Your task to perform on an android device: open the mobile data screen to see how much data has been used Image 0: 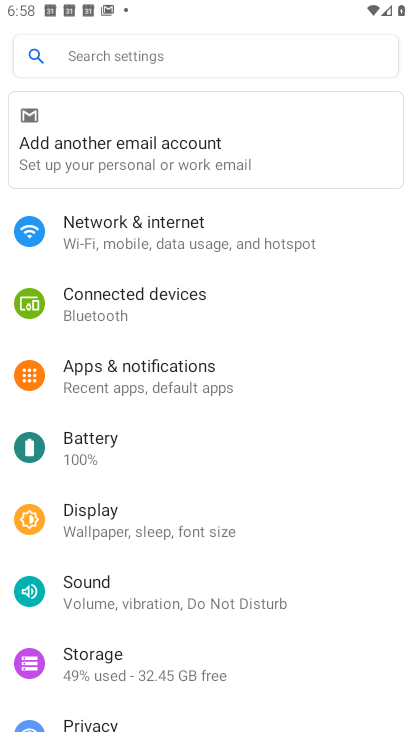
Step 0: press home button
Your task to perform on an android device: open the mobile data screen to see how much data has been used Image 1: 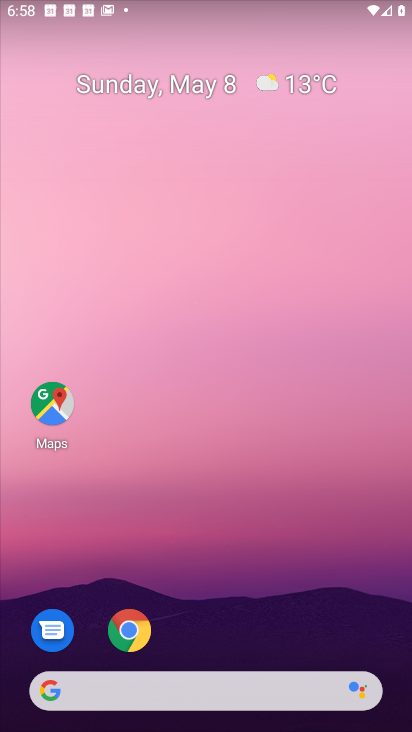
Step 1: drag from (277, 543) to (207, 169)
Your task to perform on an android device: open the mobile data screen to see how much data has been used Image 2: 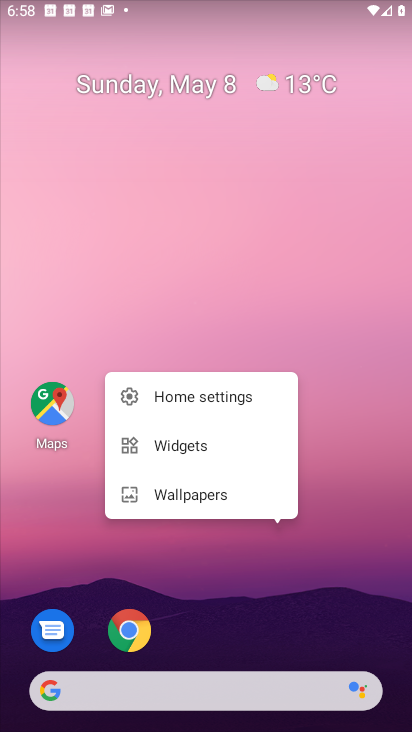
Step 2: click (348, 562)
Your task to perform on an android device: open the mobile data screen to see how much data has been used Image 3: 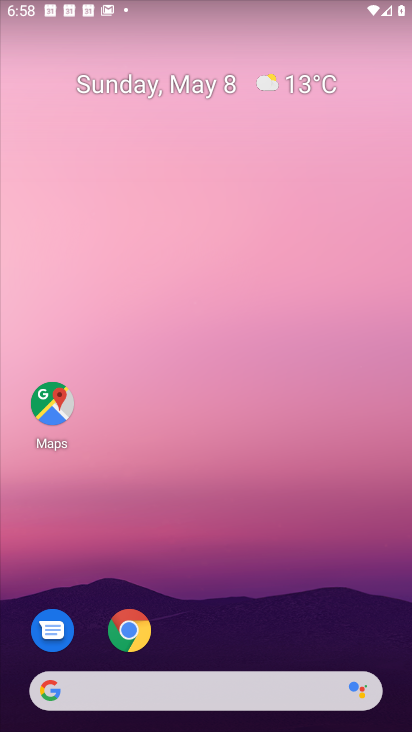
Step 3: drag from (250, 511) to (247, 65)
Your task to perform on an android device: open the mobile data screen to see how much data has been used Image 4: 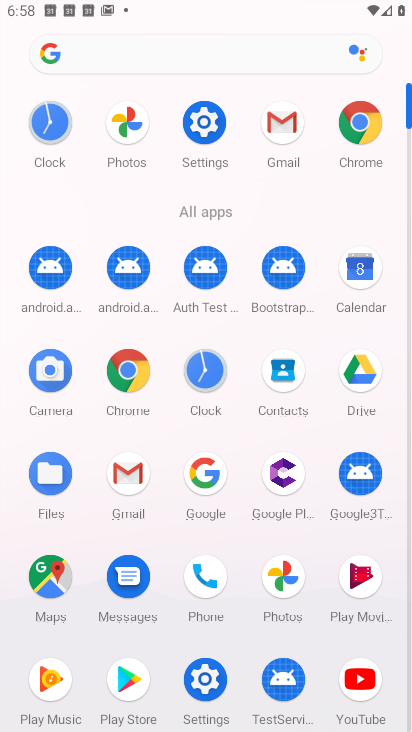
Step 4: click (195, 128)
Your task to perform on an android device: open the mobile data screen to see how much data has been used Image 5: 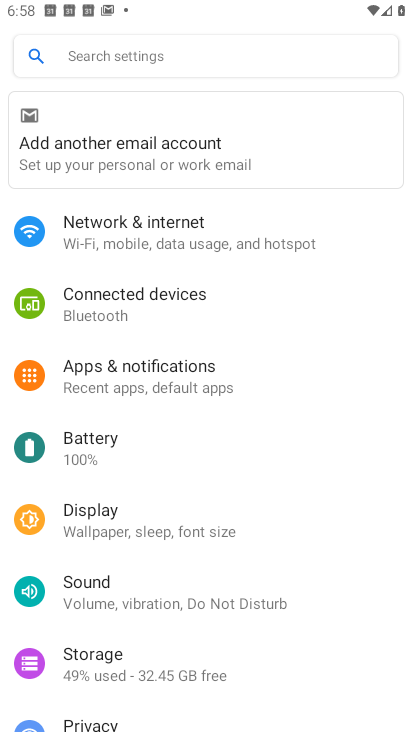
Step 5: click (122, 224)
Your task to perform on an android device: open the mobile data screen to see how much data has been used Image 6: 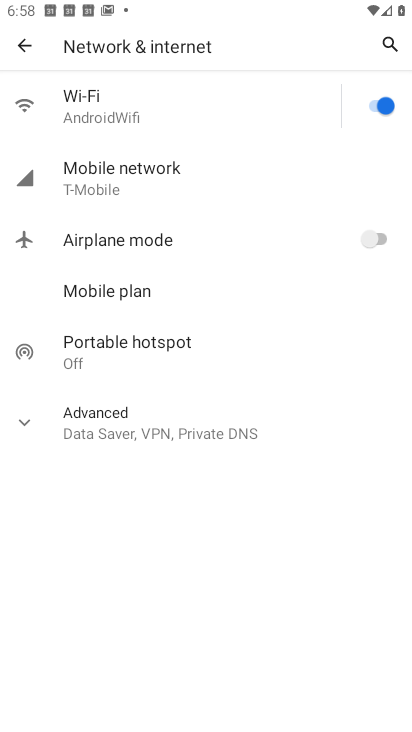
Step 6: click (117, 167)
Your task to perform on an android device: open the mobile data screen to see how much data has been used Image 7: 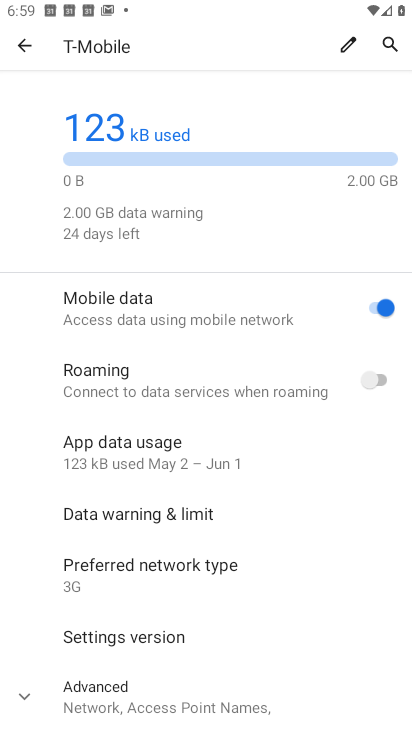
Step 7: task complete